Your task to perform on an android device: toggle notification dots Image 0: 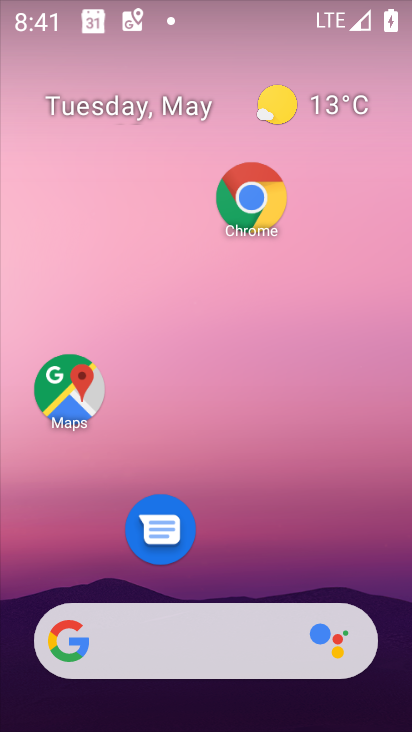
Step 0: drag from (334, 562) to (335, 48)
Your task to perform on an android device: toggle notification dots Image 1: 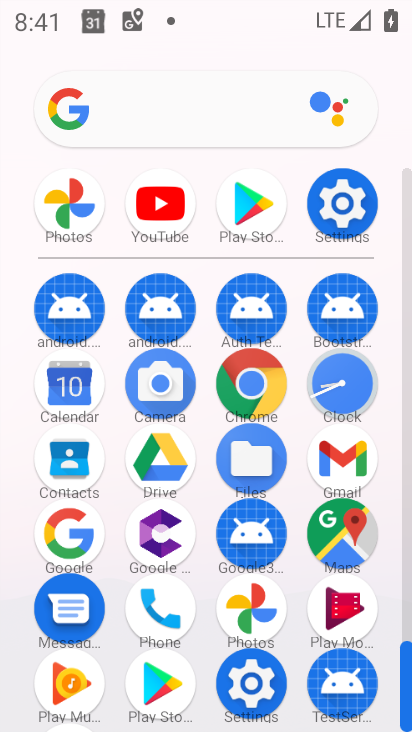
Step 1: click (342, 221)
Your task to perform on an android device: toggle notification dots Image 2: 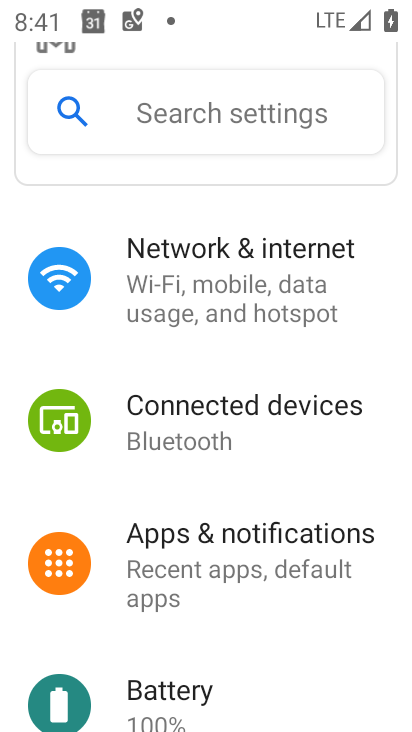
Step 2: drag from (241, 614) to (282, 340)
Your task to perform on an android device: toggle notification dots Image 3: 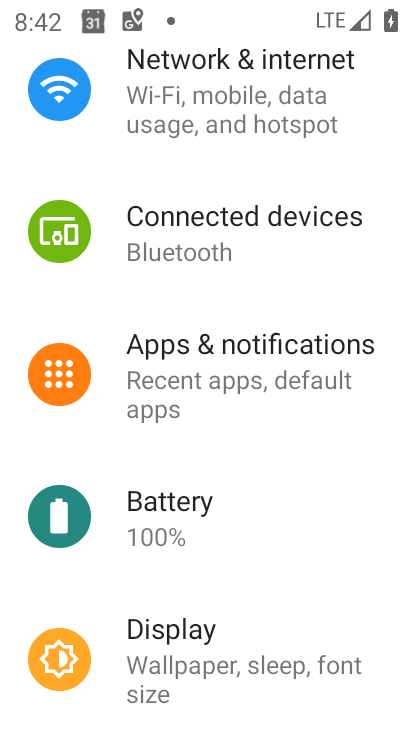
Step 3: click (248, 345)
Your task to perform on an android device: toggle notification dots Image 4: 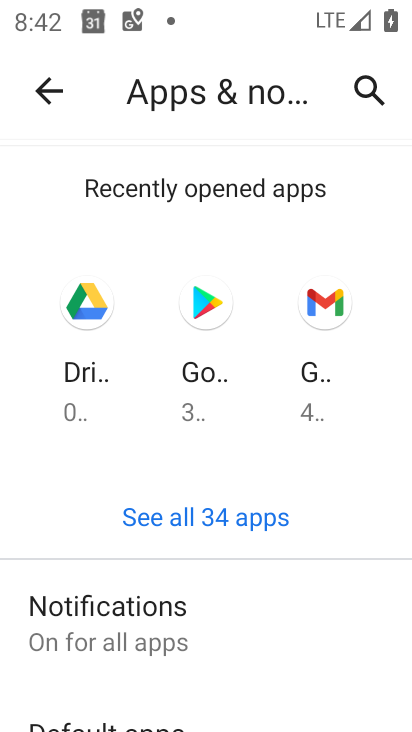
Step 4: click (141, 588)
Your task to perform on an android device: toggle notification dots Image 5: 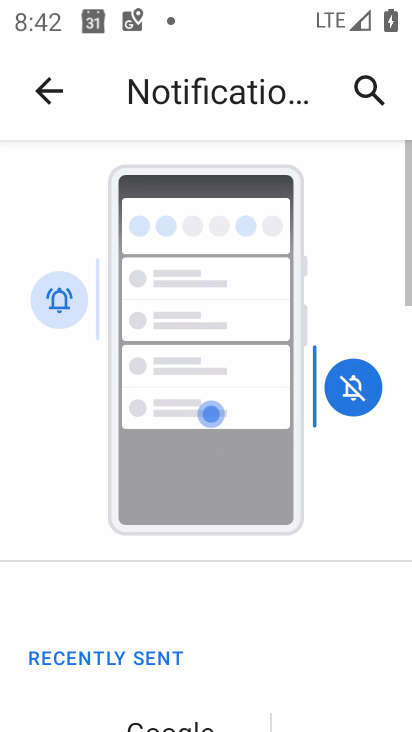
Step 5: drag from (229, 595) to (260, 228)
Your task to perform on an android device: toggle notification dots Image 6: 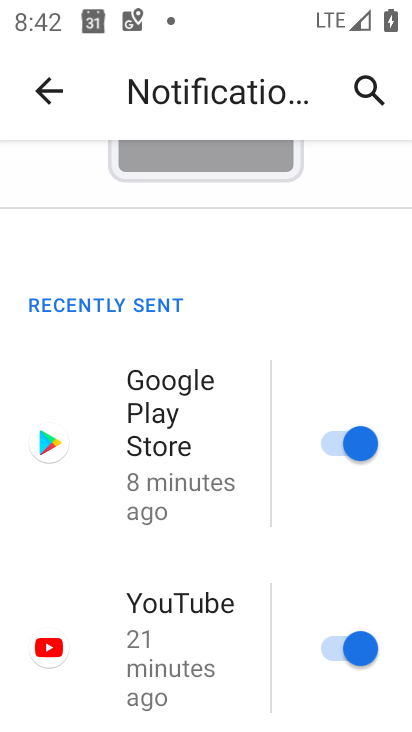
Step 6: drag from (223, 619) to (240, 220)
Your task to perform on an android device: toggle notification dots Image 7: 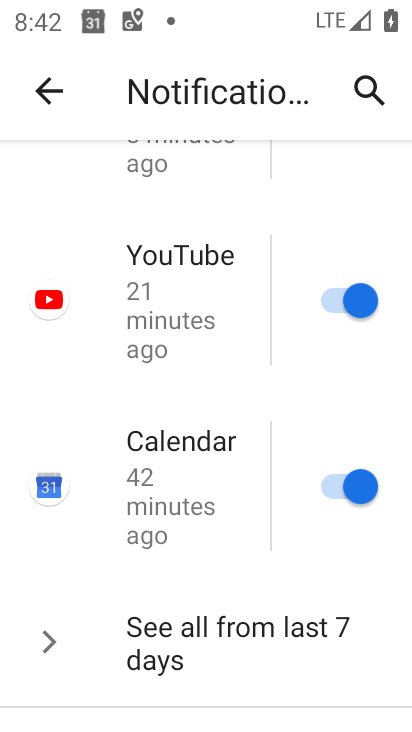
Step 7: drag from (196, 563) to (238, 218)
Your task to perform on an android device: toggle notification dots Image 8: 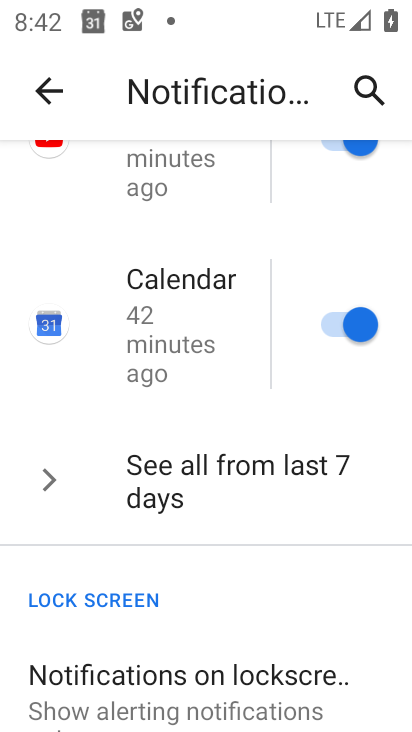
Step 8: drag from (209, 670) to (285, 162)
Your task to perform on an android device: toggle notification dots Image 9: 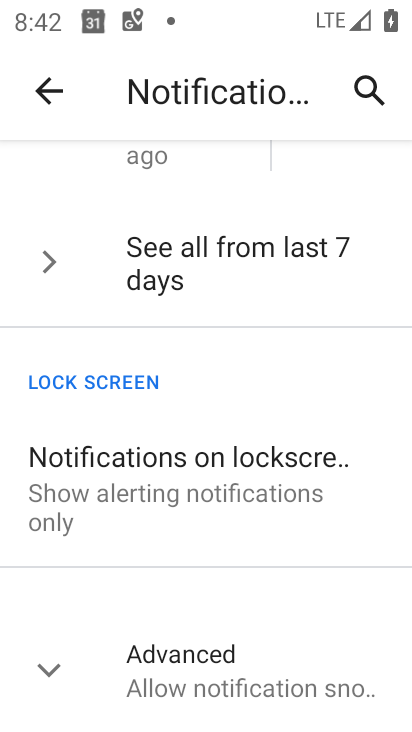
Step 9: drag from (266, 542) to (275, 315)
Your task to perform on an android device: toggle notification dots Image 10: 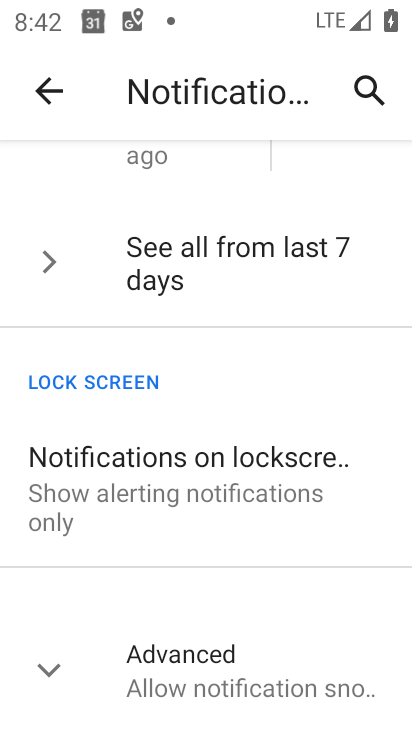
Step 10: click (226, 649)
Your task to perform on an android device: toggle notification dots Image 11: 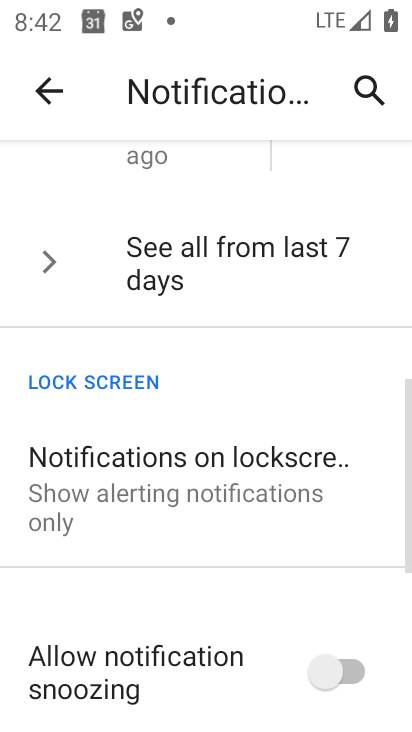
Step 11: drag from (237, 560) to (294, 30)
Your task to perform on an android device: toggle notification dots Image 12: 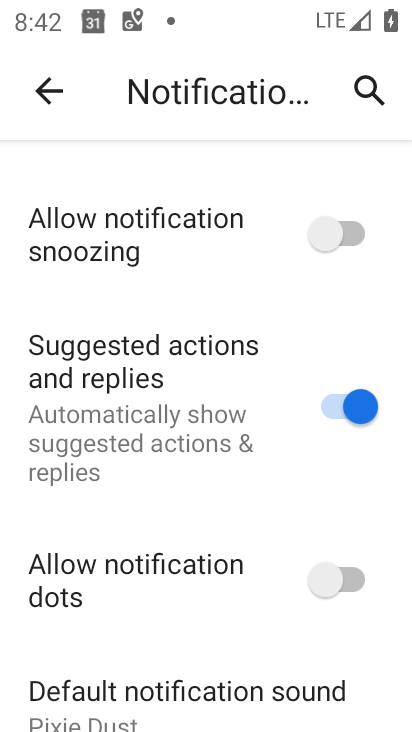
Step 12: click (336, 588)
Your task to perform on an android device: toggle notification dots Image 13: 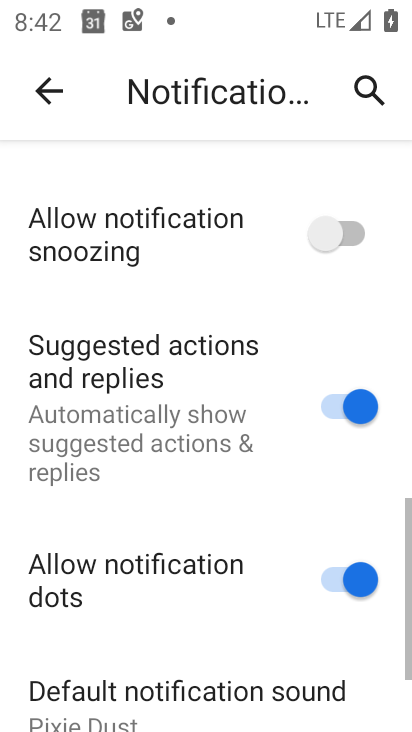
Step 13: task complete